Your task to perform on an android device: Search for usb-c to usb-b on walmart.com, select the first entry, add it to the cart, then select checkout. Image 0: 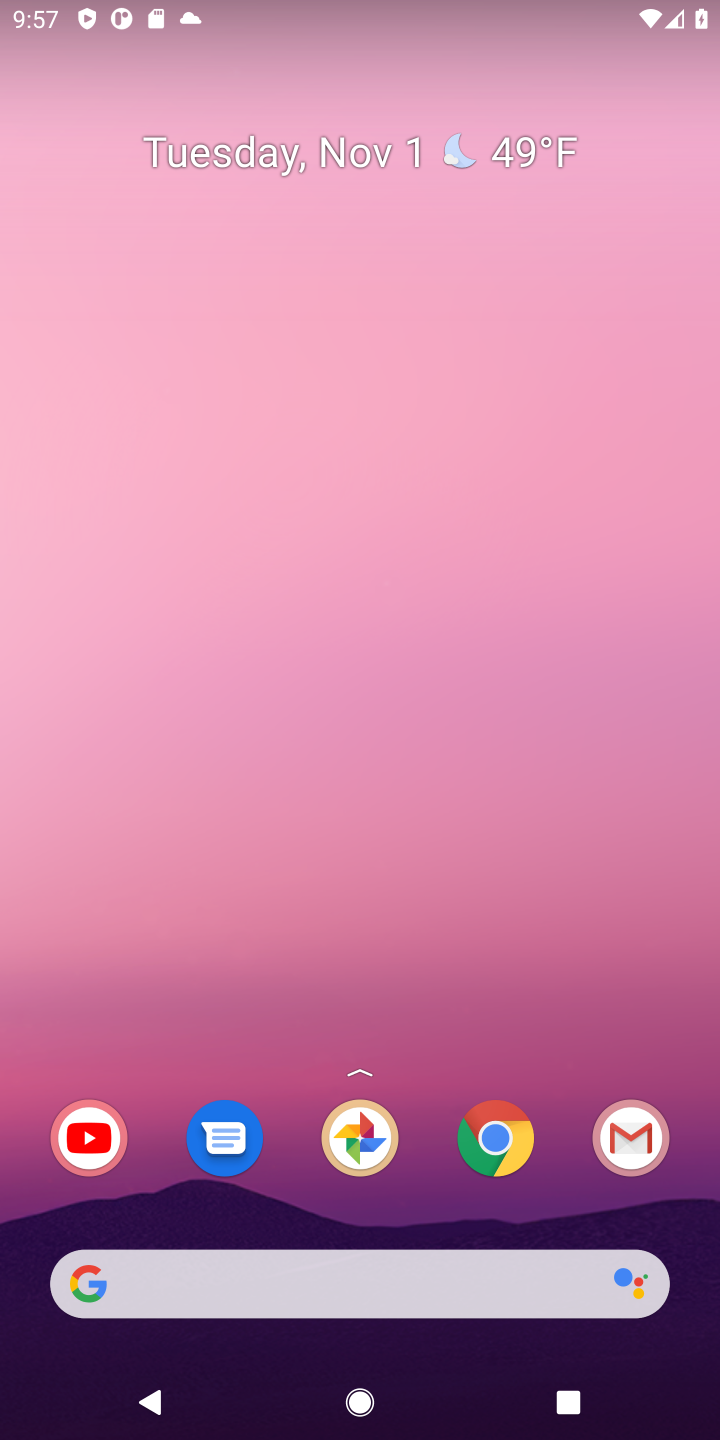
Step 0: click (498, 1143)
Your task to perform on an android device: Search for usb-c to usb-b on walmart.com, select the first entry, add it to the cart, then select checkout. Image 1: 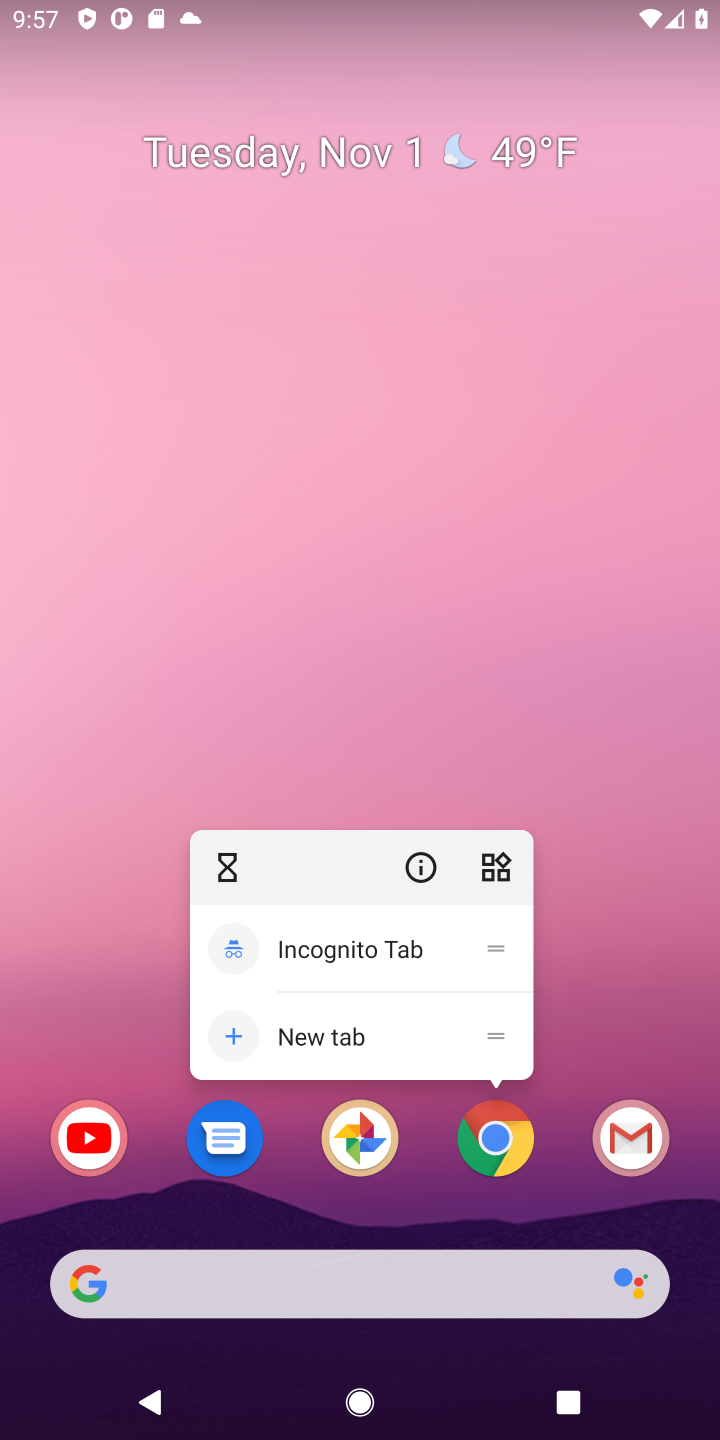
Step 1: click (498, 1138)
Your task to perform on an android device: Search for usb-c to usb-b on walmart.com, select the first entry, add it to the cart, then select checkout. Image 2: 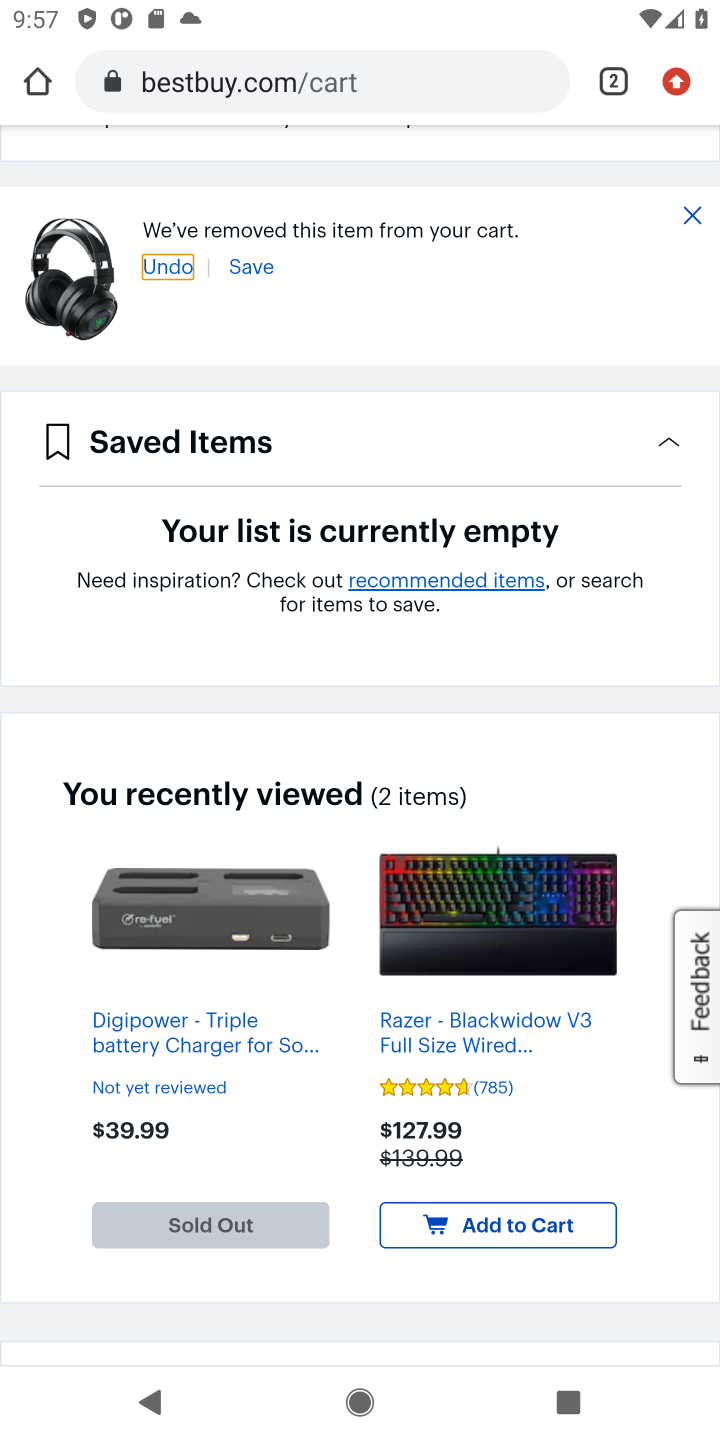
Step 2: click (339, 95)
Your task to perform on an android device: Search for usb-c to usb-b on walmart.com, select the first entry, add it to the cart, then select checkout. Image 3: 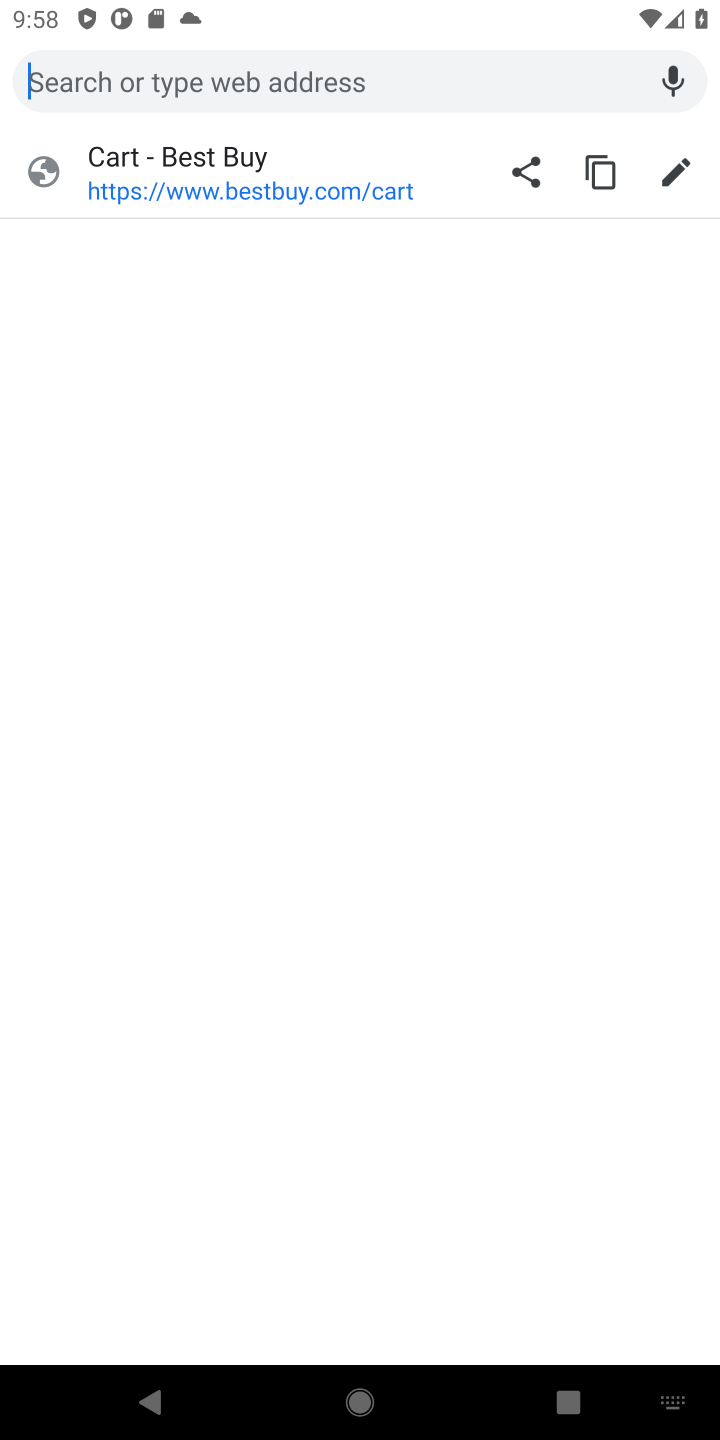
Step 3: type "walmart.com"
Your task to perform on an android device: Search for usb-c to usb-b on walmart.com, select the first entry, add it to the cart, then select checkout. Image 4: 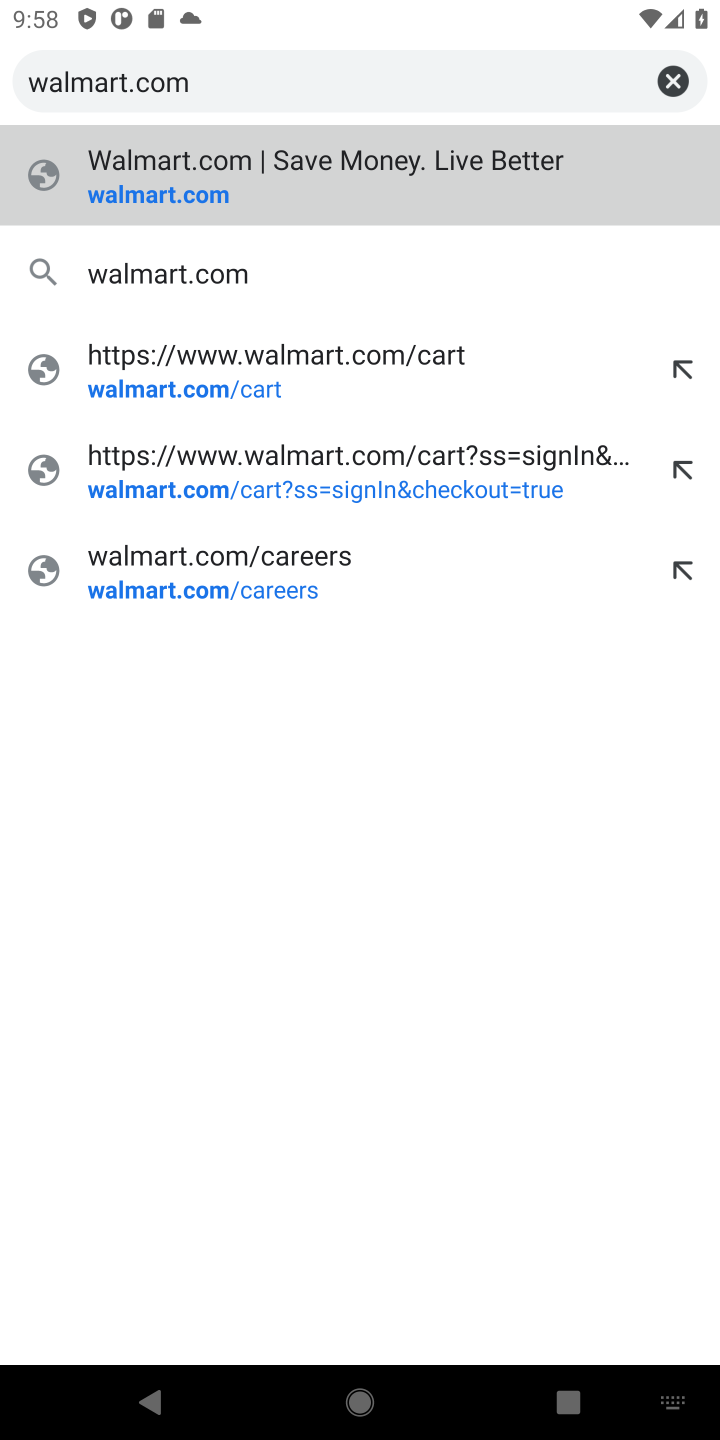
Step 4: click (219, 266)
Your task to perform on an android device: Search for usb-c to usb-b on walmart.com, select the first entry, add it to the cart, then select checkout. Image 5: 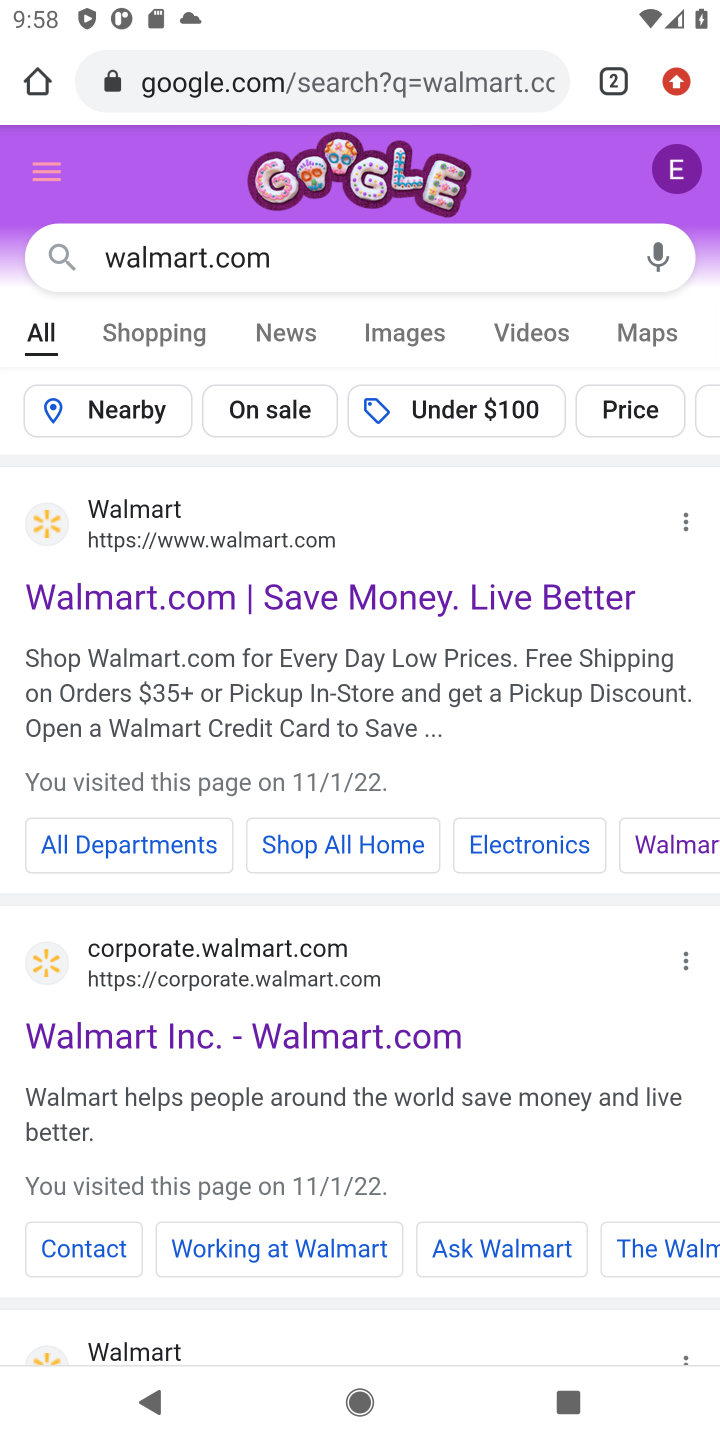
Step 5: click (202, 567)
Your task to perform on an android device: Search for usb-c to usb-b on walmart.com, select the first entry, add it to the cart, then select checkout. Image 6: 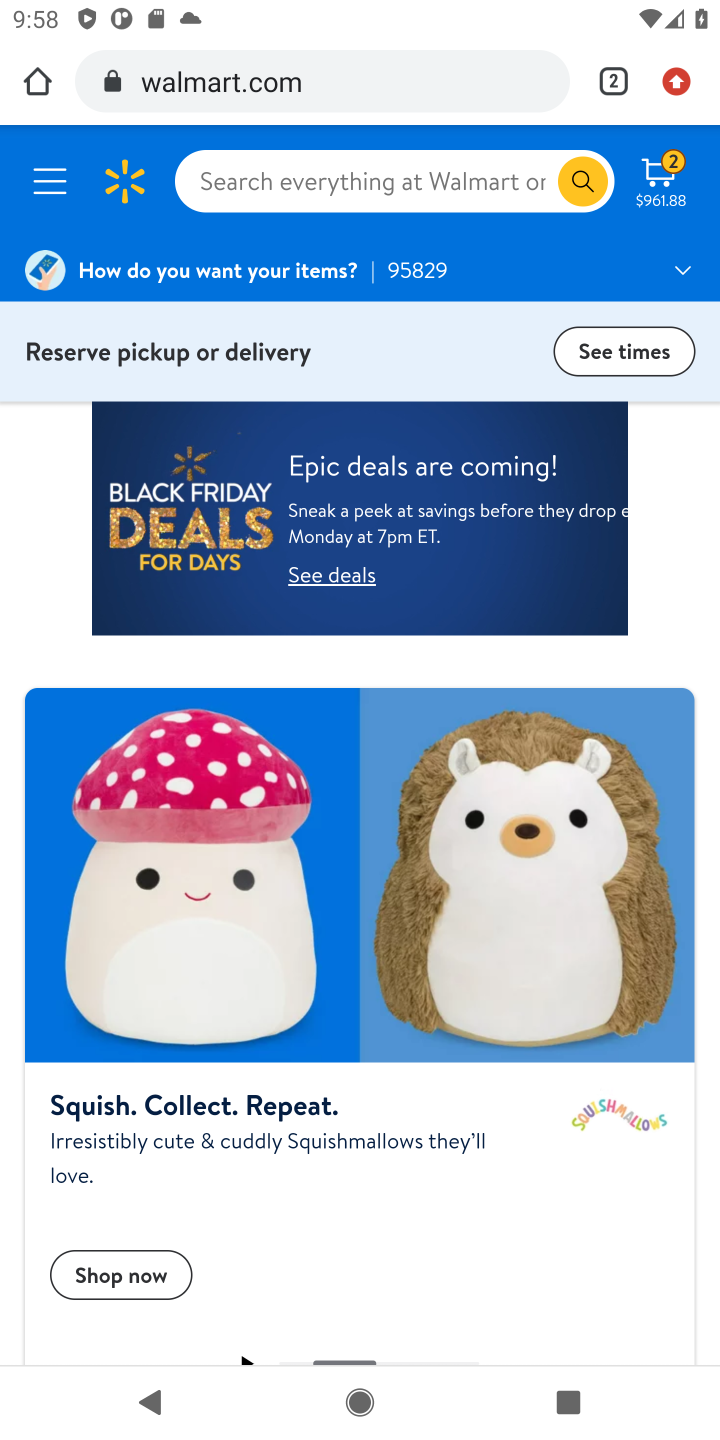
Step 6: click (357, 194)
Your task to perform on an android device: Search for usb-c to usb-b on walmart.com, select the first entry, add it to the cart, then select checkout. Image 7: 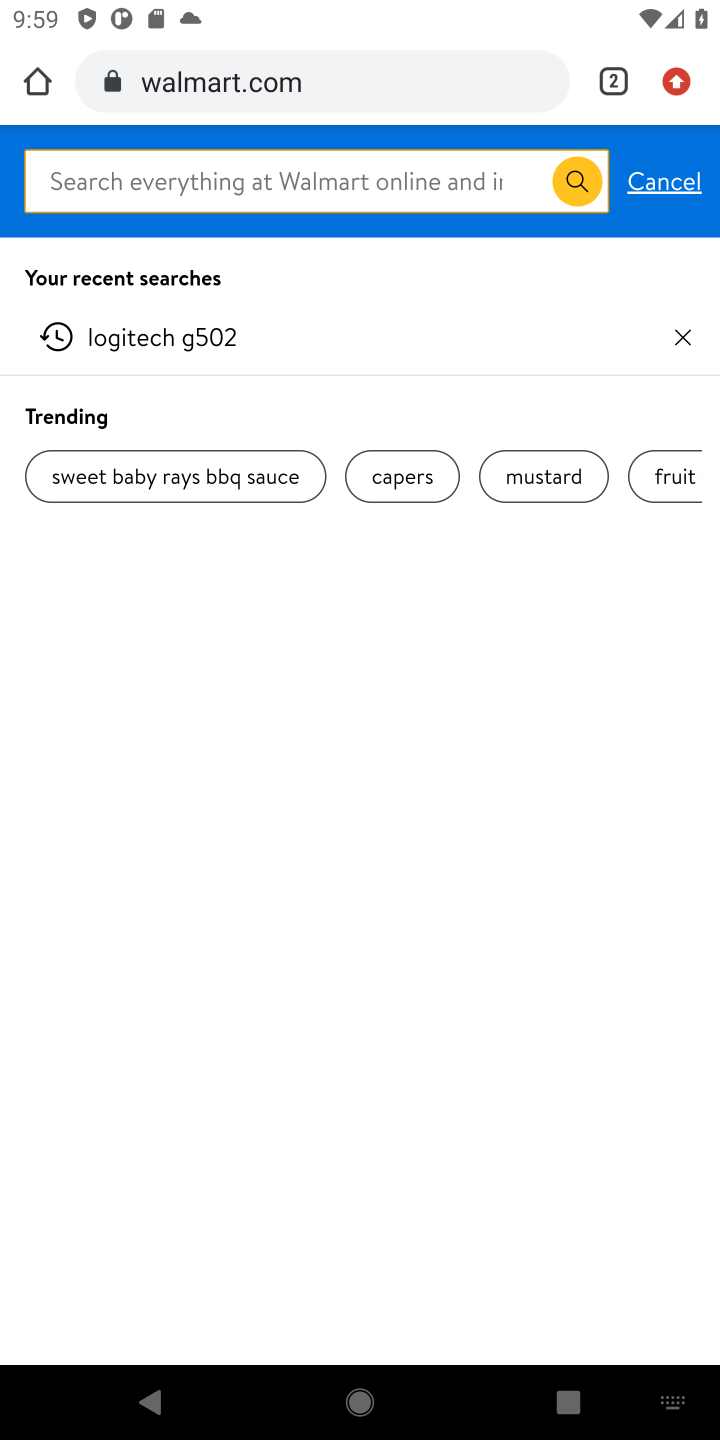
Step 7: type "usb-c to usb-b"
Your task to perform on an android device: Search for usb-c to usb-b on walmart.com, select the first entry, add it to the cart, then select checkout. Image 8: 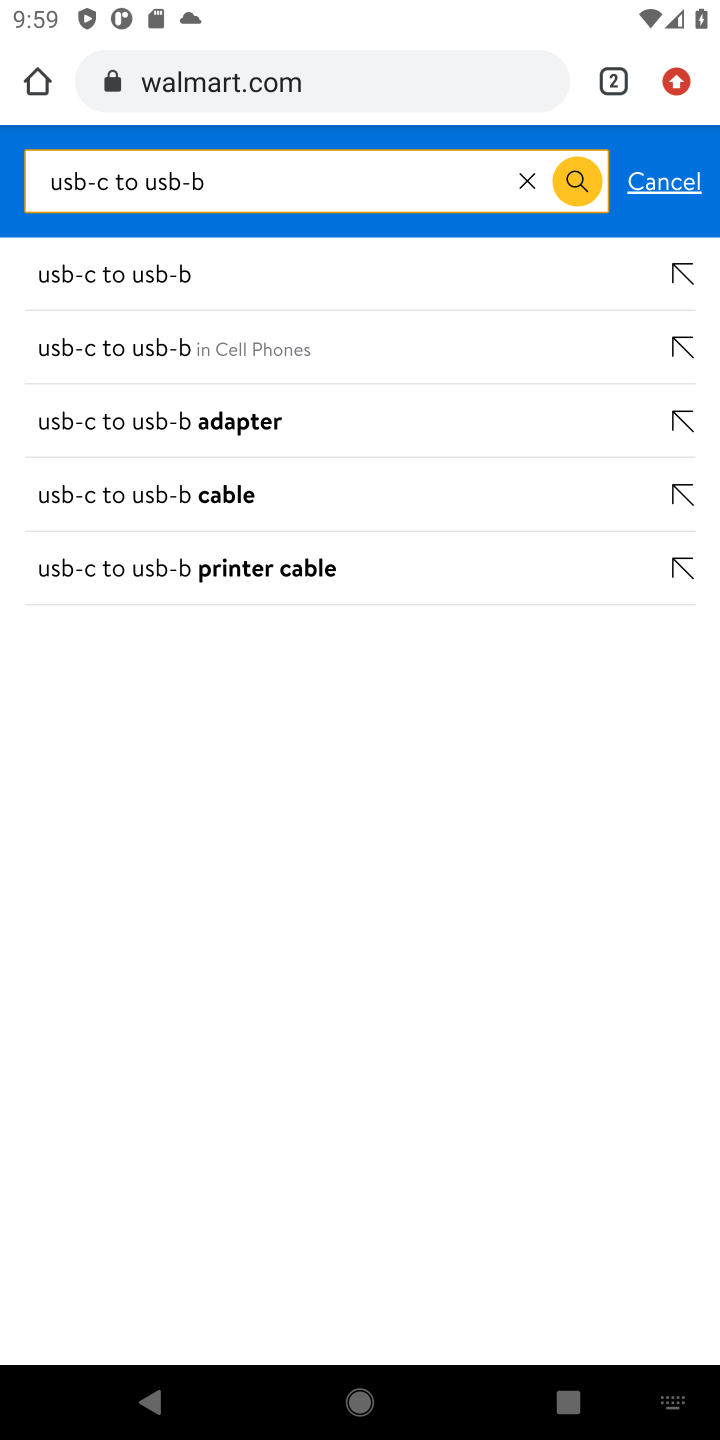
Step 8: click (93, 268)
Your task to perform on an android device: Search for usb-c to usb-b on walmart.com, select the first entry, add it to the cart, then select checkout. Image 9: 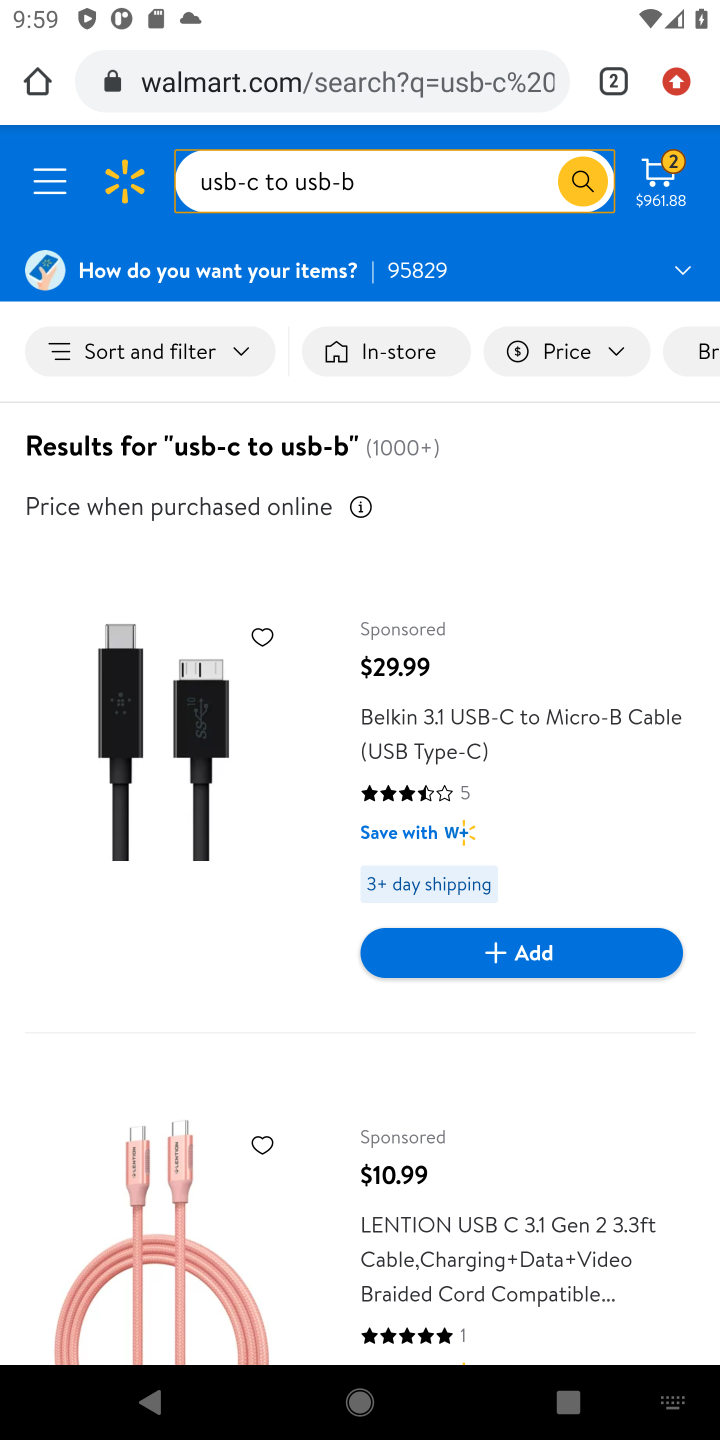
Step 9: click (520, 729)
Your task to perform on an android device: Search for usb-c to usb-b on walmart.com, select the first entry, add it to the cart, then select checkout. Image 10: 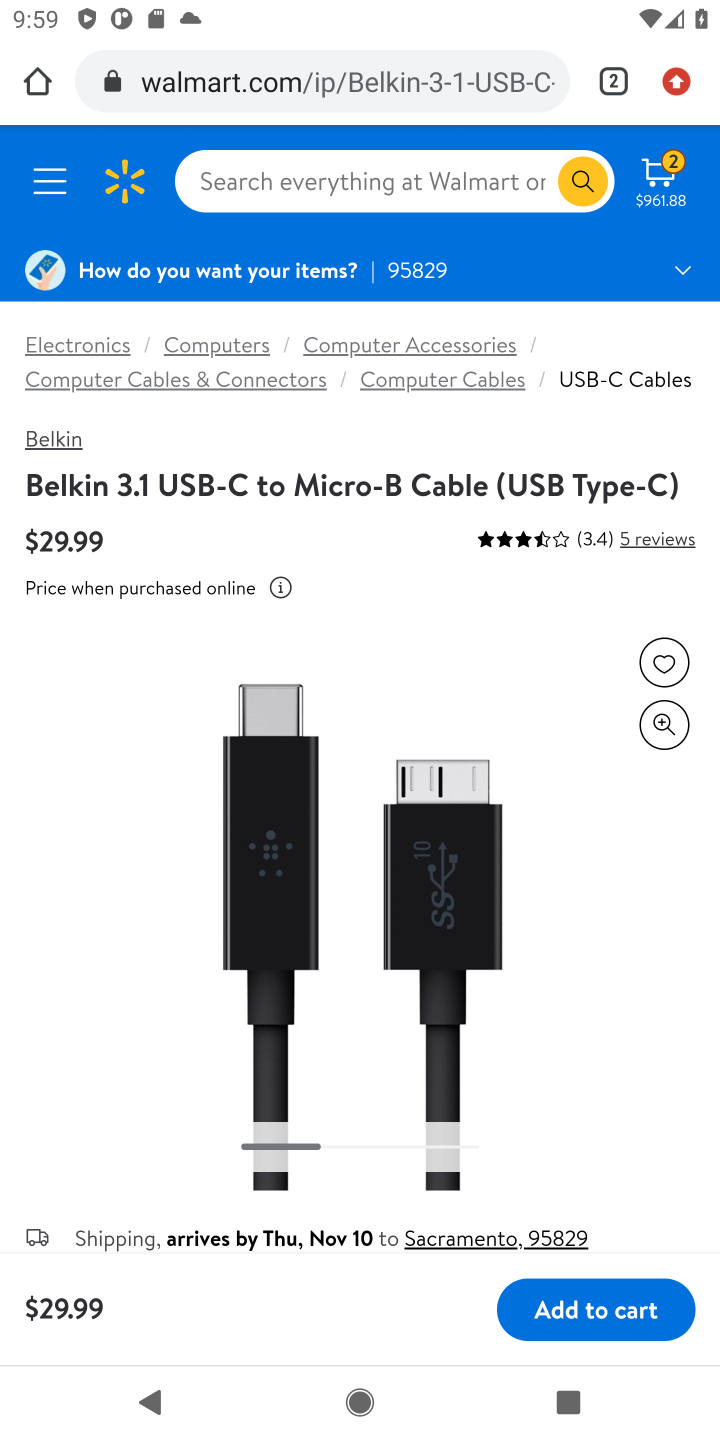
Step 10: click (582, 1311)
Your task to perform on an android device: Search for usb-c to usb-b on walmart.com, select the first entry, add it to the cart, then select checkout. Image 11: 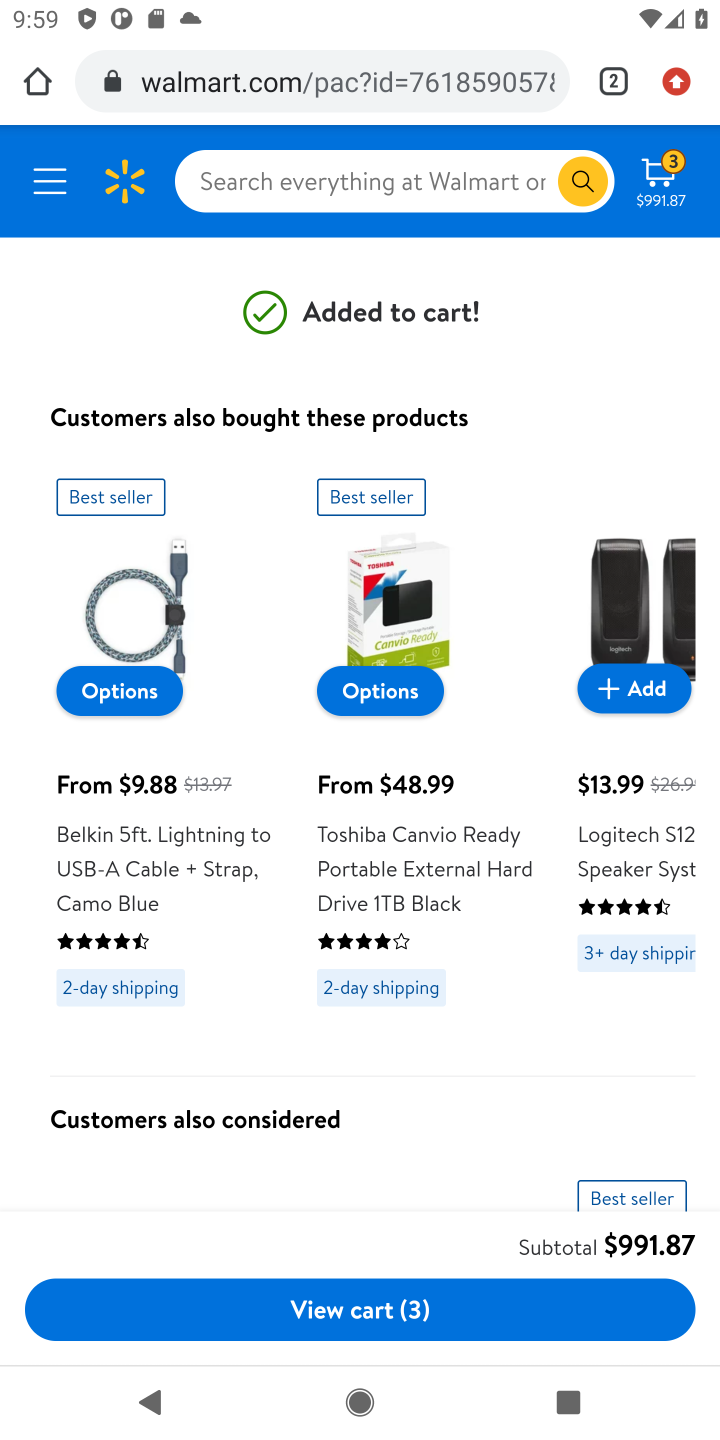
Step 11: click (331, 1314)
Your task to perform on an android device: Search for usb-c to usb-b on walmart.com, select the first entry, add it to the cart, then select checkout. Image 12: 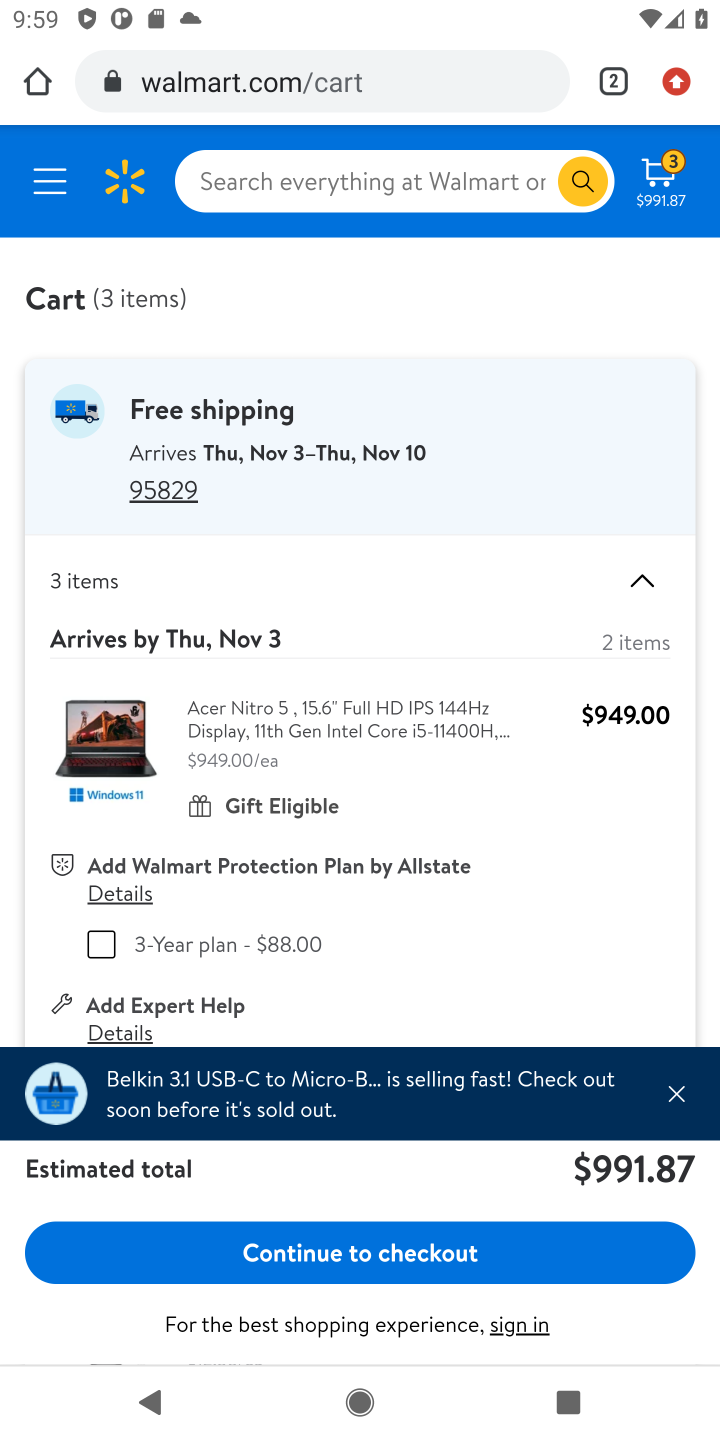
Step 12: click (355, 1256)
Your task to perform on an android device: Search for usb-c to usb-b on walmart.com, select the first entry, add it to the cart, then select checkout. Image 13: 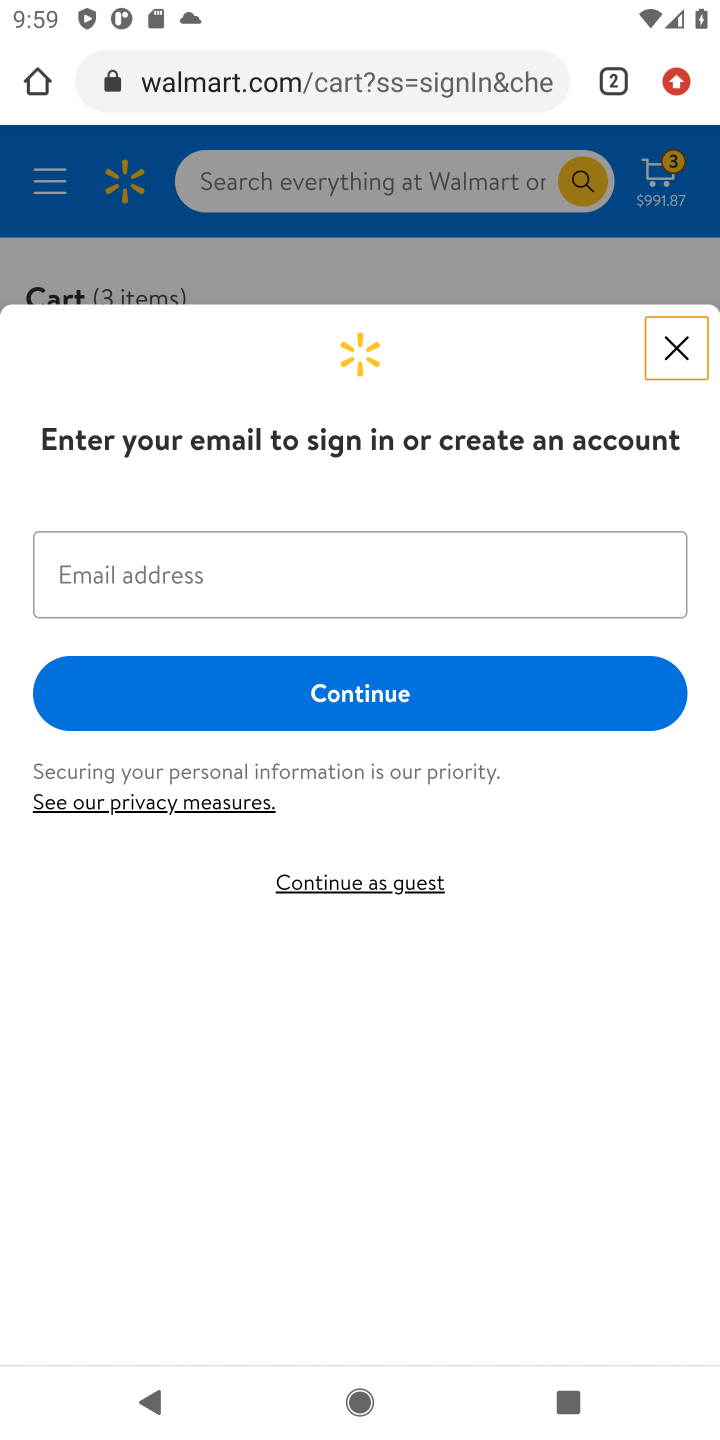
Step 13: task complete